Your task to perform on an android device: Go to Yahoo.com Image 0: 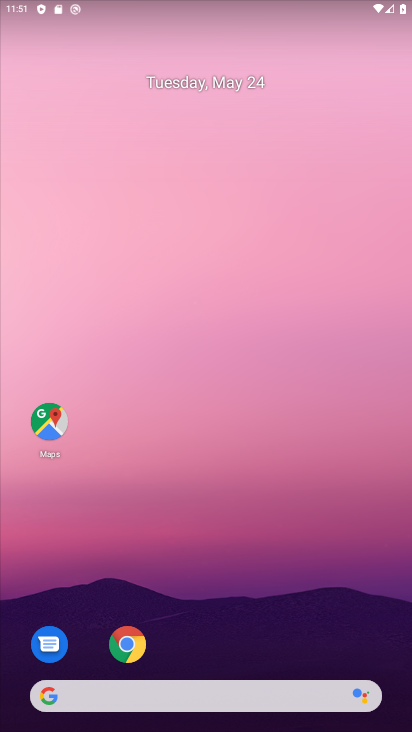
Step 0: click (127, 654)
Your task to perform on an android device: Go to Yahoo.com Image 1: 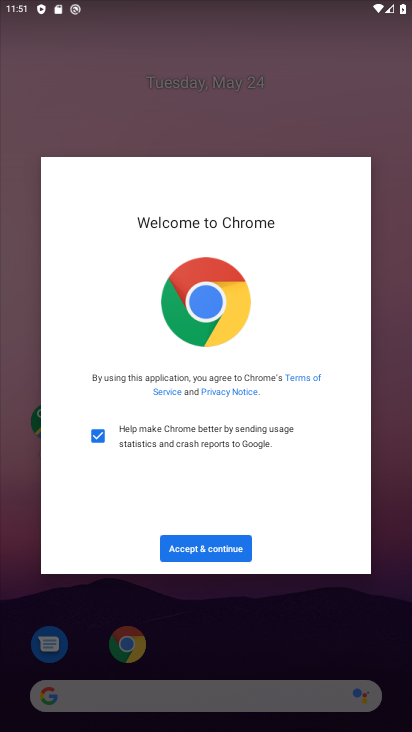
Step 1: click (222, 559)
Your task to perform on an android device: Go to Yahoo.com Image 2: 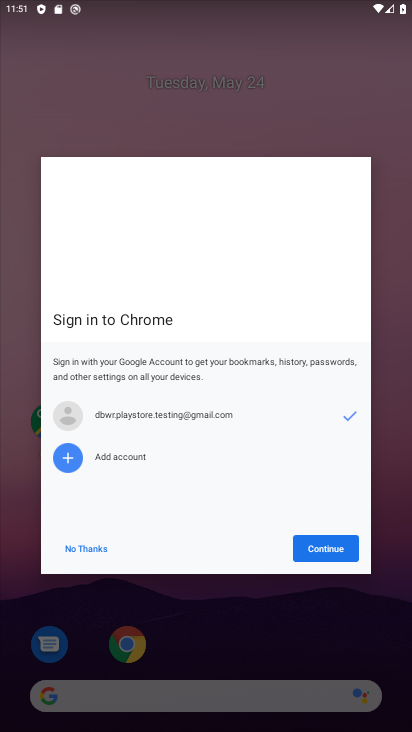
Step 2: click (324, 540)
Your task to perform on an android device: Go to Yahoo.com Image 3: 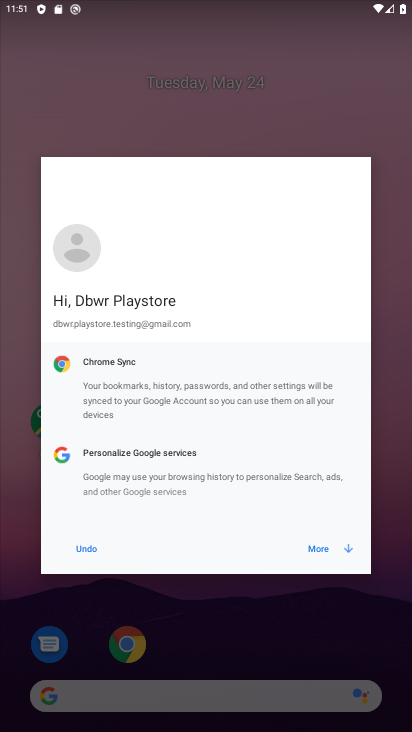
Step 3: click (338, 556)
Your task to perform on an android device: Go to Yahoo.com Image 4: 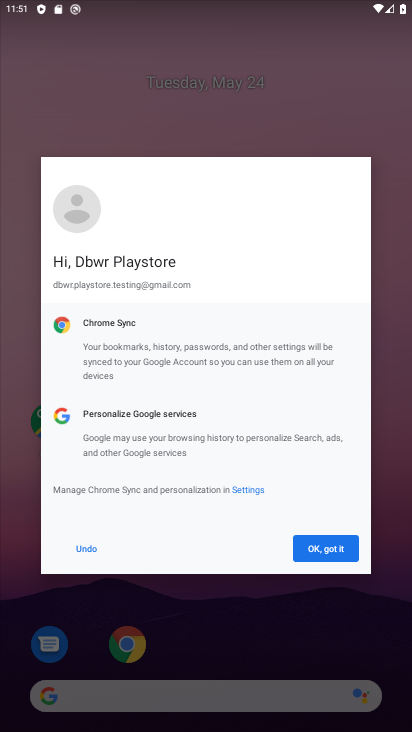
Step 4: click (332, 545)
Your task to perform on an android device: Go to Yahoo.com Image 5: 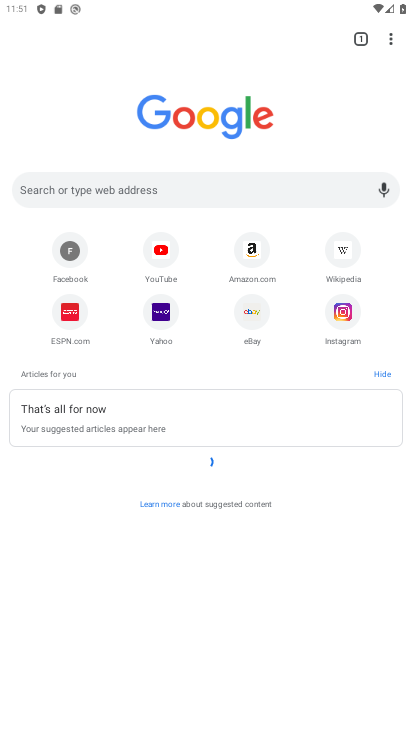
Step 5: click (154, 323)
Your task to perform on an android device: Go to Yahoo.com Image 6: 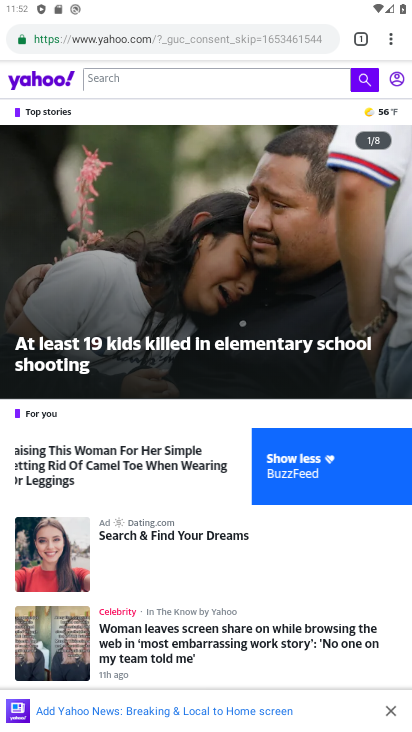
Step 6: task complete